Your task to perform on an android device: toggle sleep mode Image 0: 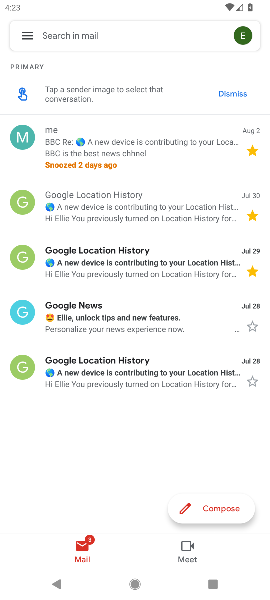
Step 0: press home button
Your task to perform on an android device: toggle sleep mode Image 1: 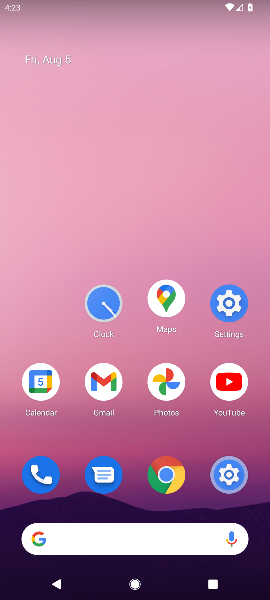
Step 1: click (231, 472)
Your task to perform on an android device: toggle sleep mode Image 2: 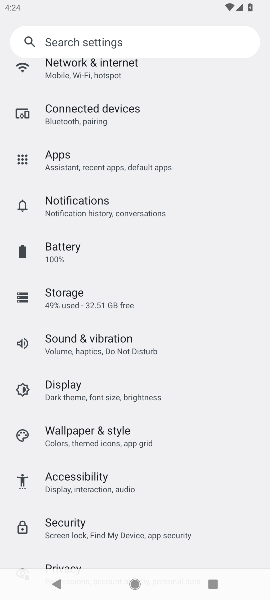
Step 2: click (94, 386)
Your task to perform on an android device: toggle sleep mode Image 3: 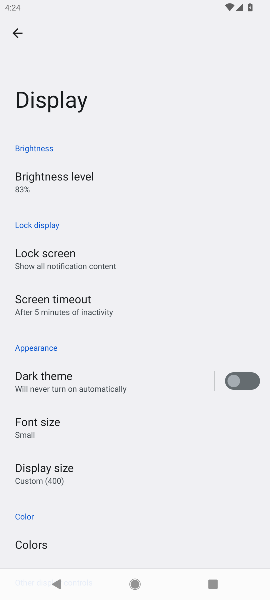
Step 3: click (36, 305)
Your task to perform on an android device: toggle sleep mode Image 4: 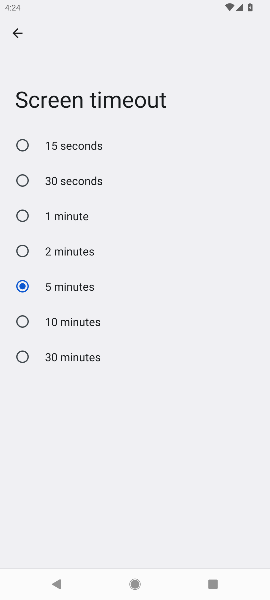
Step 4: click (50, 255)
Your task to perform on an android device: toggle sleep mode Image 5: 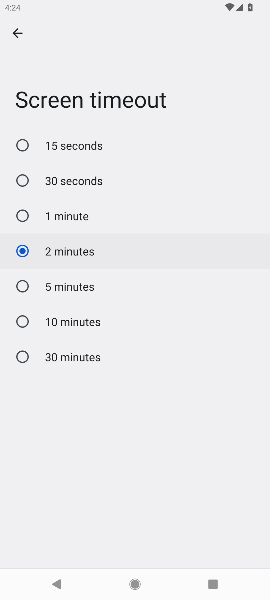
Step 5: task complete